Your task to perform on an android device: stop showing notifications on the lock screen Image 0: 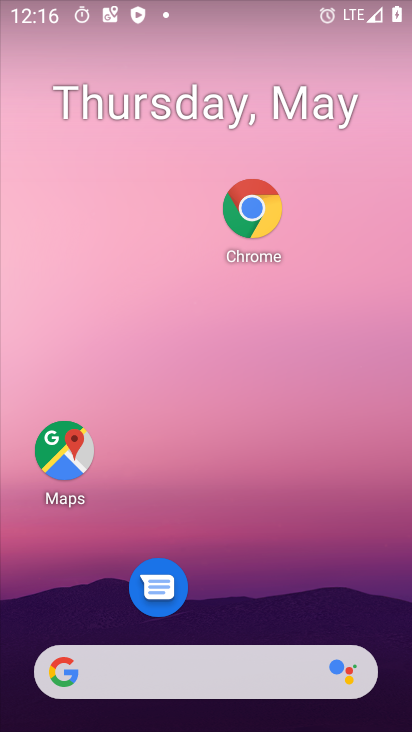
Step 0: drag from (230, 627) to (236, 115)
Your task to perform on an android device: stop showing notifications on the lock screen Image 1: 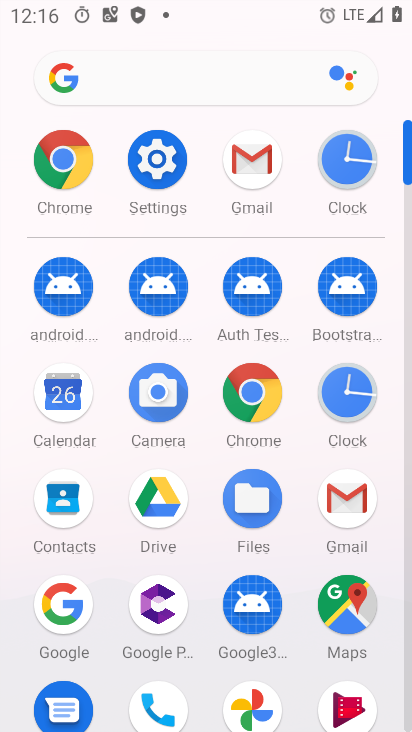
Step 1: click (151, 149)
Your task to perform on an android device: stop showing notifications on the lock screen Image 2: 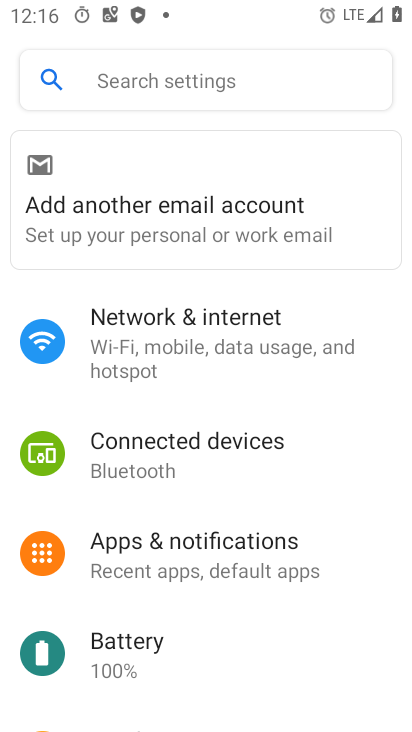
Step 2: click (244, 553)
Your task to perform on an android device: stop showing notifications on the lock screen Image 3: 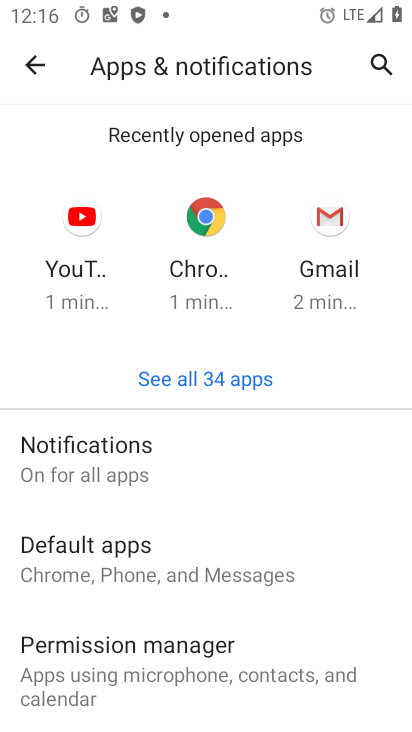
Step 3: click (119, 473)
Your task to perform on an android device: stop showing notifications on the lock screen Image 4: 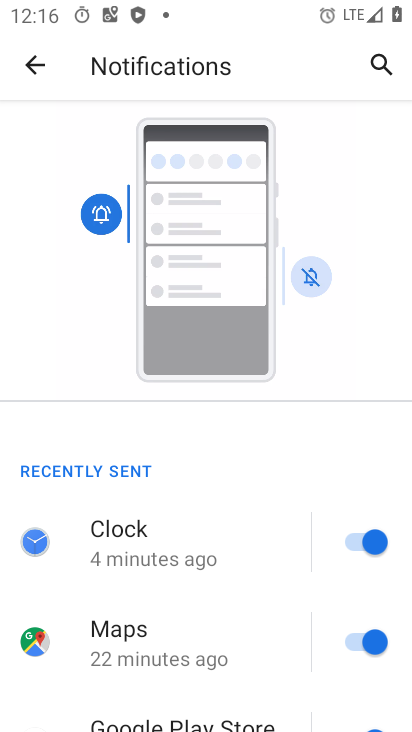
Step 4: drag from (140, 683) to (199, 4)
Your task to perform on an android device: stop showing notifications on the lock screen Image 5: 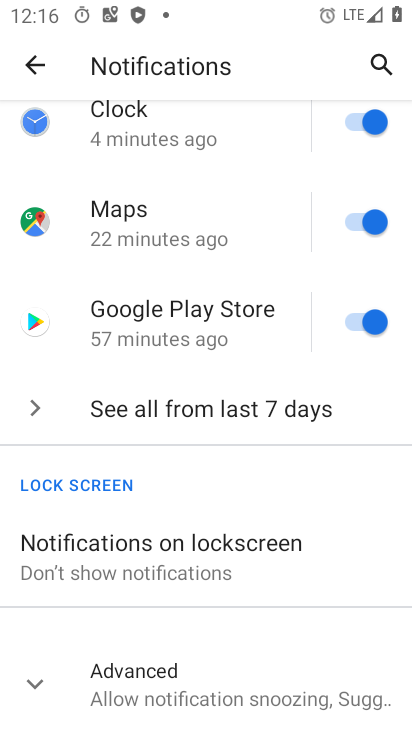
Step 5: click (142, 567)
Your task to perform on an android device: stop showing notifications on the lock screen Image 6: 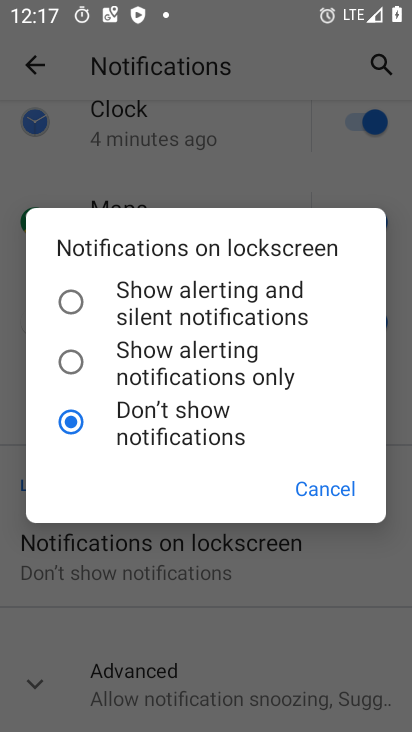
Step 6: task complete